Your task to perform on an android device: manage bookmarks in the chrome app Image 0: 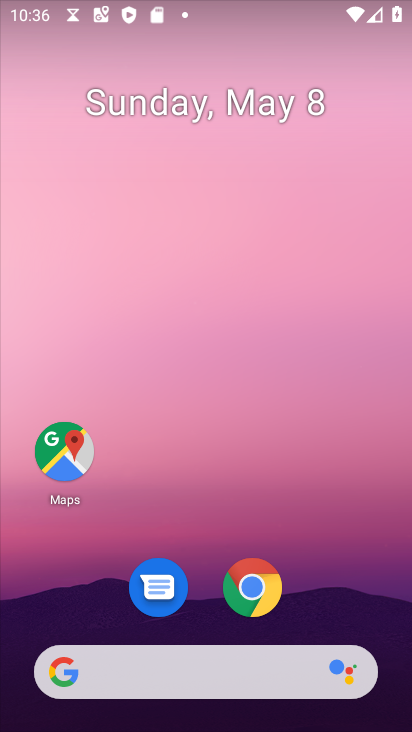
Step 0: click (261, 593)
Your task to perform on an android device: manage bookmarks in the chrome app Image 1: 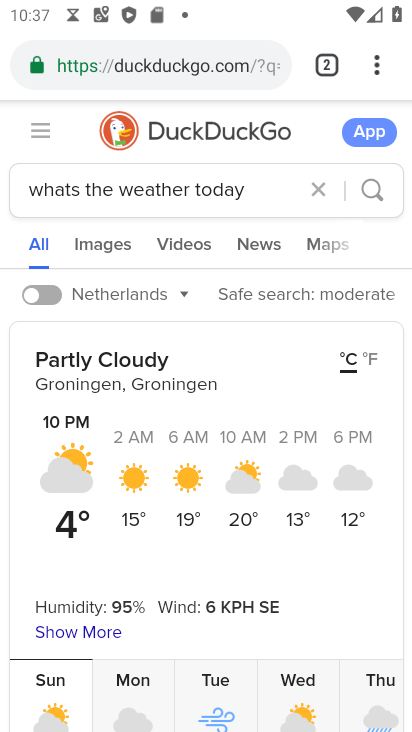
Step 1: drag from (378, 63) to (146, 254)
Your task to perform on an android device: manage bookmarks in the chrome app Image 2: 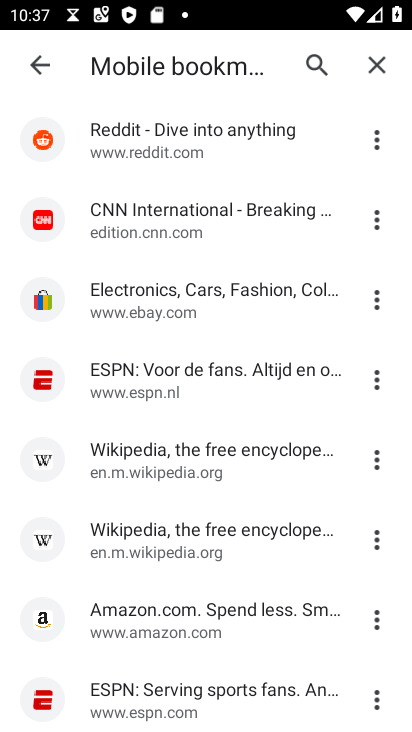
Step 2: click (377, 377)
Your task to perform on an android device: manage bookmarks in the chrome app Image 3: 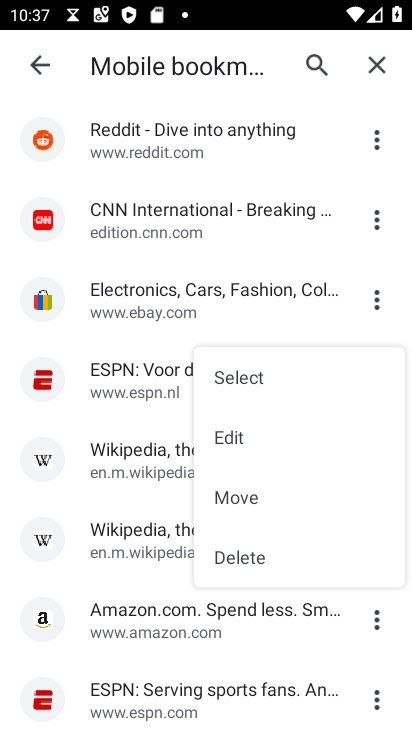
Step 3: click (246, 491)
Your task to perform on an android device: manage bookmarks in the chrome app Image 4: 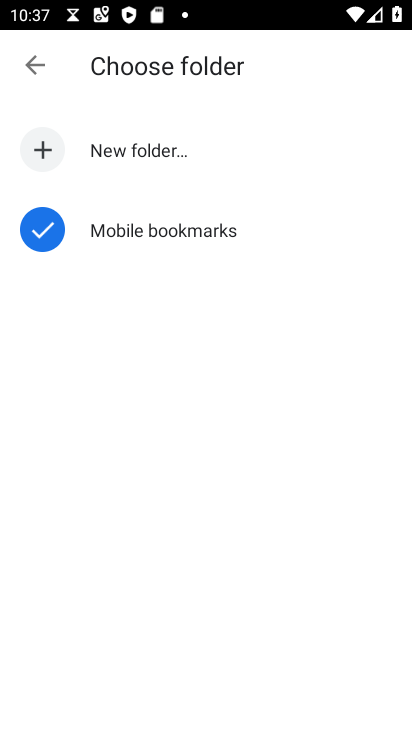
Step 4: click (112, 157)
Your task to perform on an android device: manage bookmarks in the chrome app Image 5: 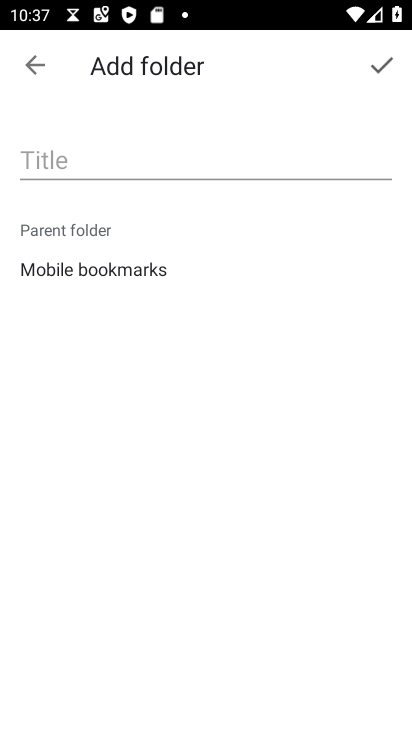
Step 5: click (115, 153)
Your task to perform on an android device: manage bookmarks in the chrome app Image 6: 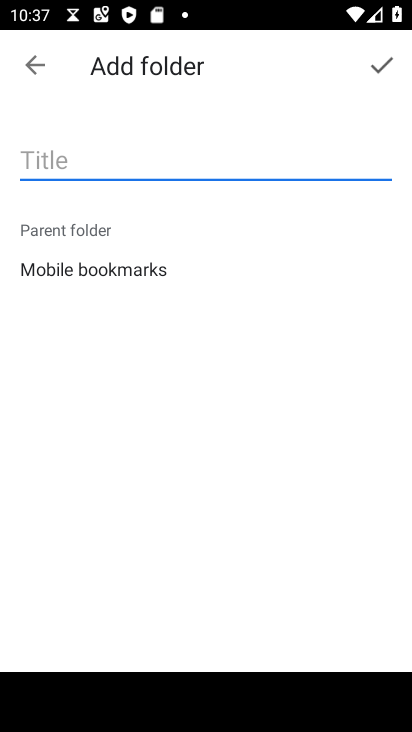
Step 6: type "espn"
Your task to perform on an android device: manage bookmarks in the chrome app Image 7: 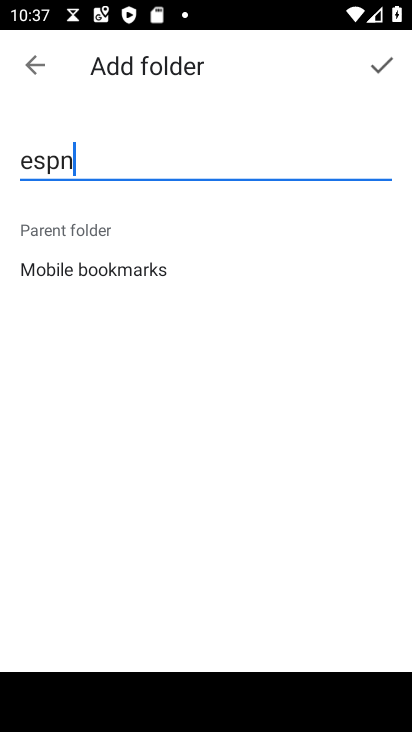
Step 7: click (379, 60)
Your task to perform on an android device: manage bookmarks in the chrome app Image 8: 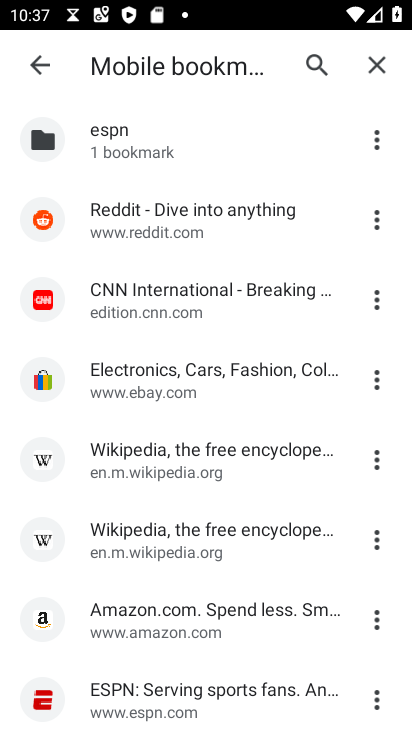
Step 8: click (377, 698)
Your task to perform on an android device: manage bookmarks in the chrome app Image 9: 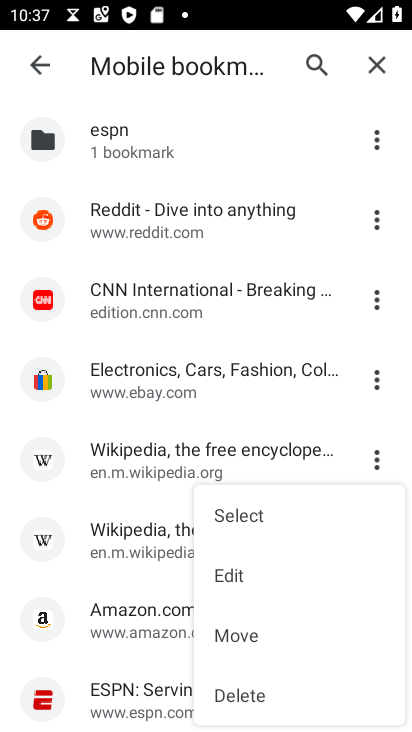
Step 9: click (242, 631)
Your task to perform on an android device: manage bookmarks in the chrome app Image 10: 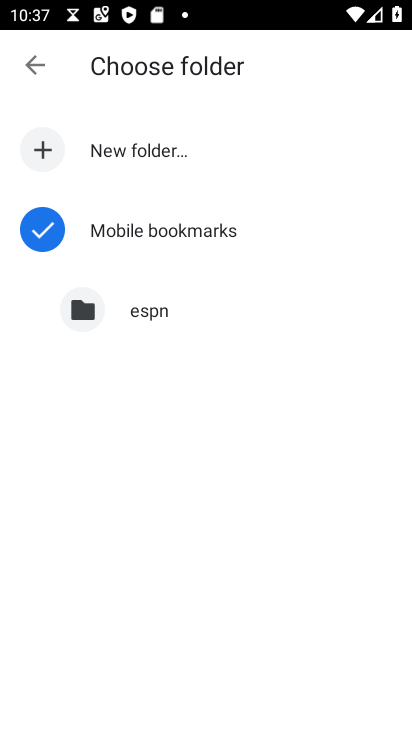
Step 10: click (145, 319)
Your task to perform on an android device: manage bookmarks in the chrome app Image 11: 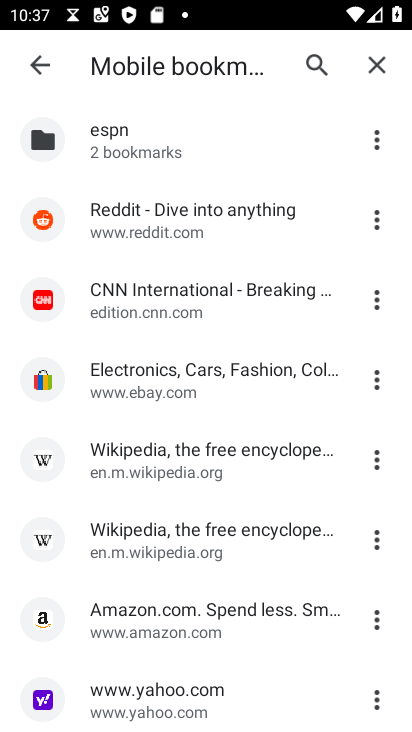
Step 11: drag from (235, 635) to (219, 294)
Your task to perform on an android device: manage bookmarks in the chrome app Image 12: 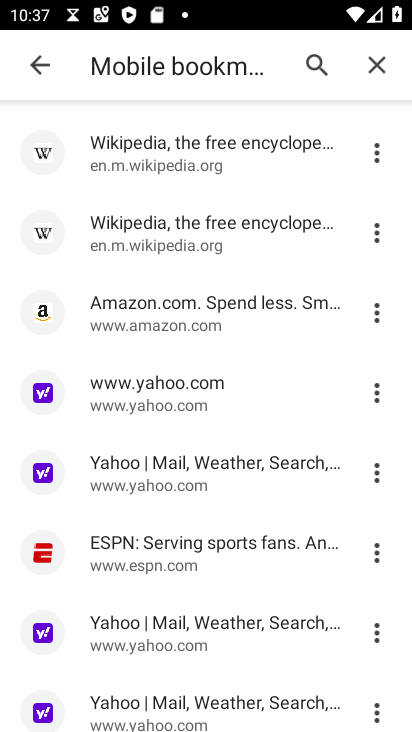
Step 12: click (378, 550)
Your task to perform on an android device: manage bookmarks in the chrome app Image 13: 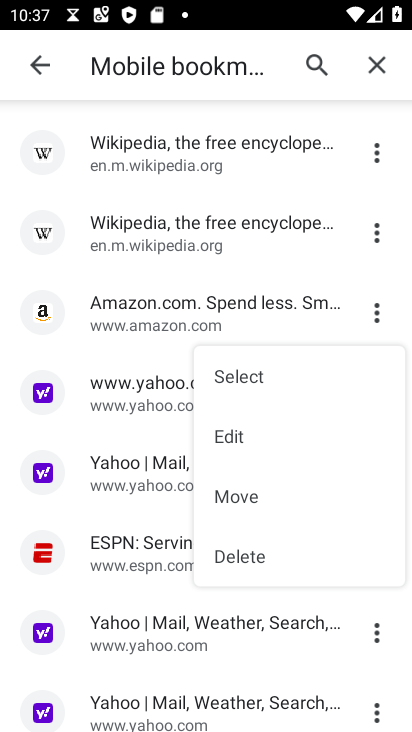
Step 13: click (242, 496)
Your task to perform on an android device: manage bookmarks in the chrome app Image 14: 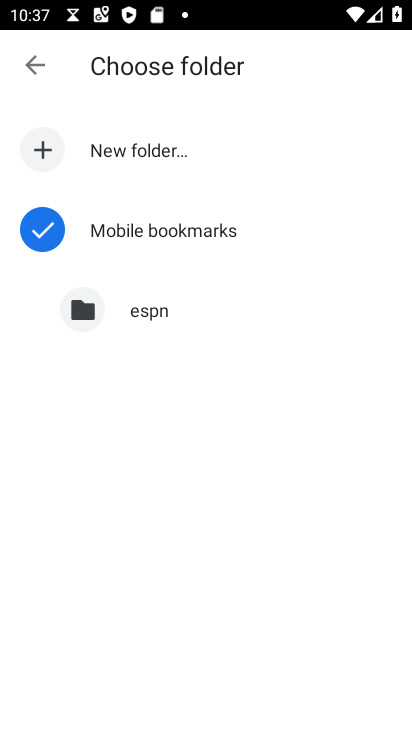
Step 14: click (124, 317)
Your task to perform on an android device: manage bookmarks in the chrome app Image 15: 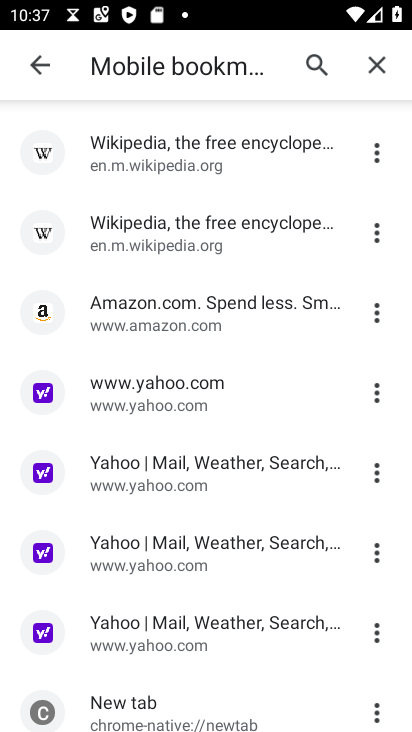
Step 15: task complete